Your task to perform on an android device: Go to battery settings Image 0: 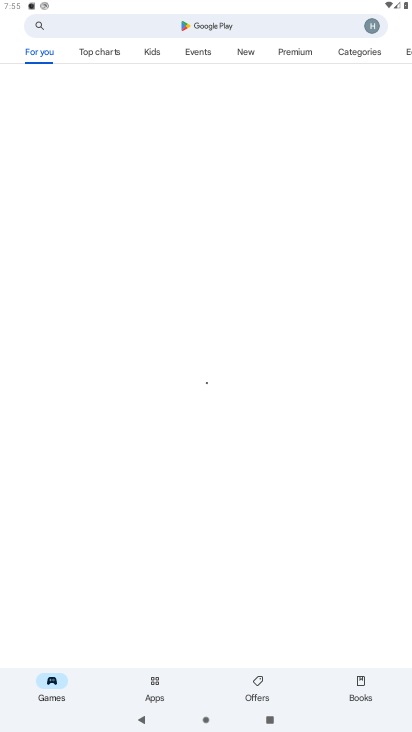
Step 0: press home button
Your task to perform on an android device: Go to battery settings Image 1: 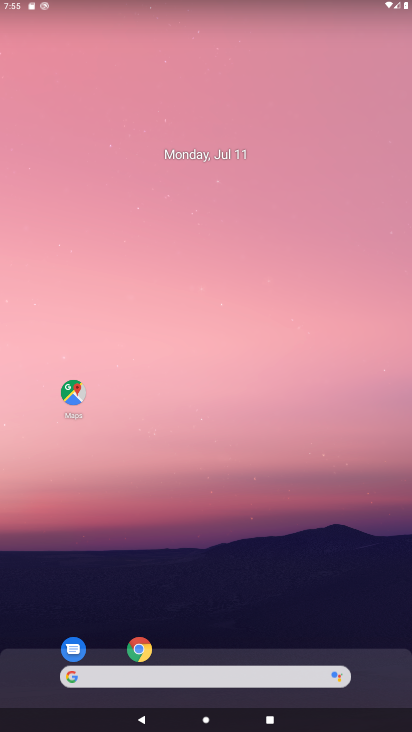
Step 1: drag from (238, 629) to (240, 45)
Your task to perform on an android device: Go to battery settings Image 2: 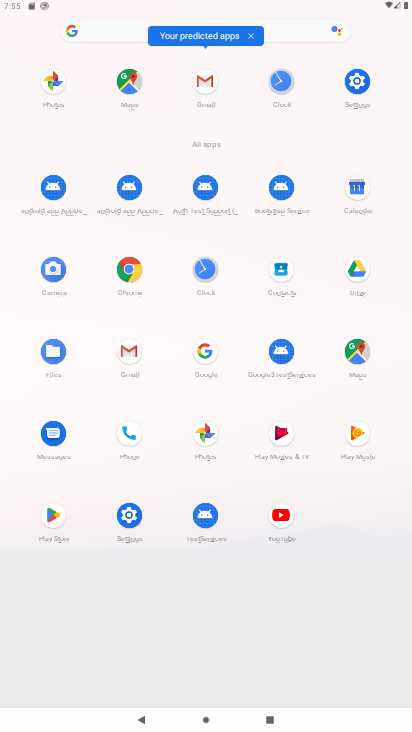
Step 2: click (351, 80)
Your task to perform on an android device: Go to battery settings Image 3: 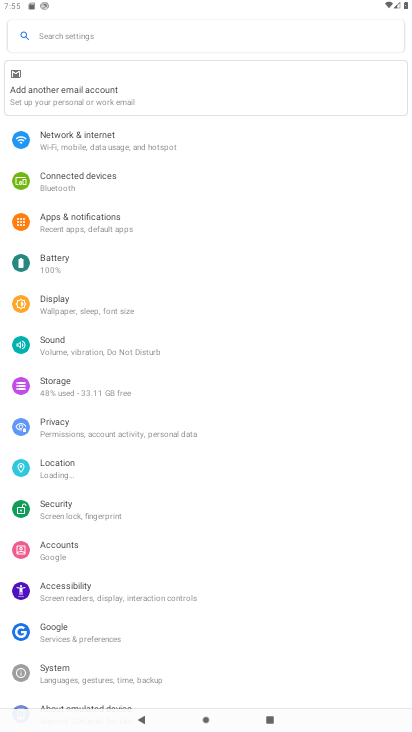
Step 3: click (99, 263)
Your task to perform on an android device: Go to battery settings Image 4: 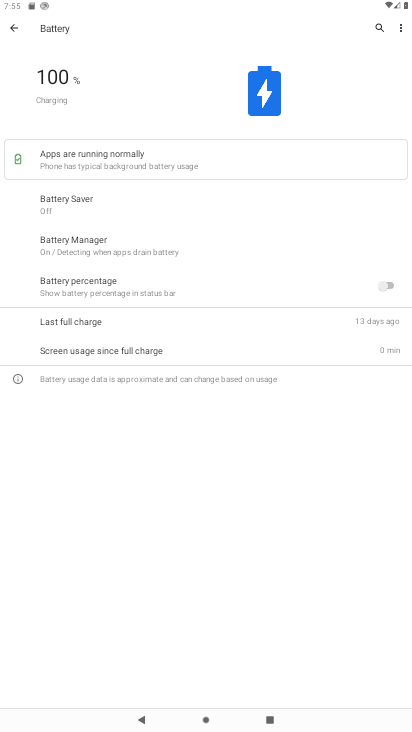
Step 4: task complete